Your task to perform on an android device: Open Youtube and go to "Your channel" Image 0: 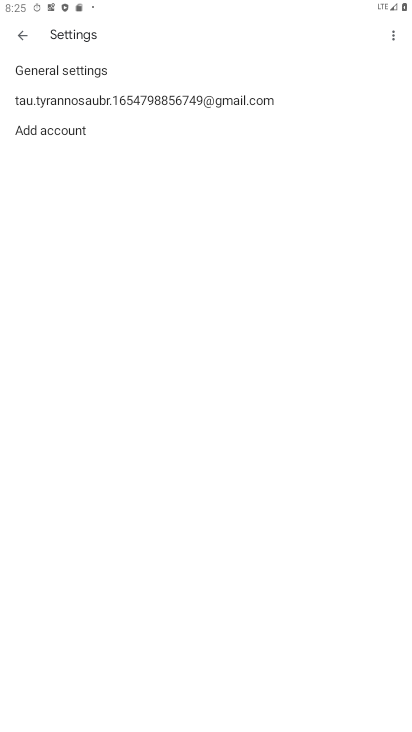
Step 0: press home button
Your task to perform on an android device: Open Youtube and go to "Your channel" Image 1: 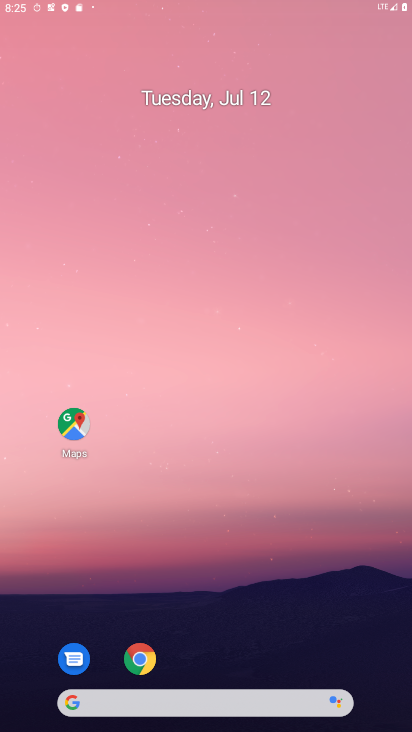
Step 1: drag from (344, 668) to (137, 45)
Your task to perform on an android device: Open Youtube and go to "Your channel" Image 2: 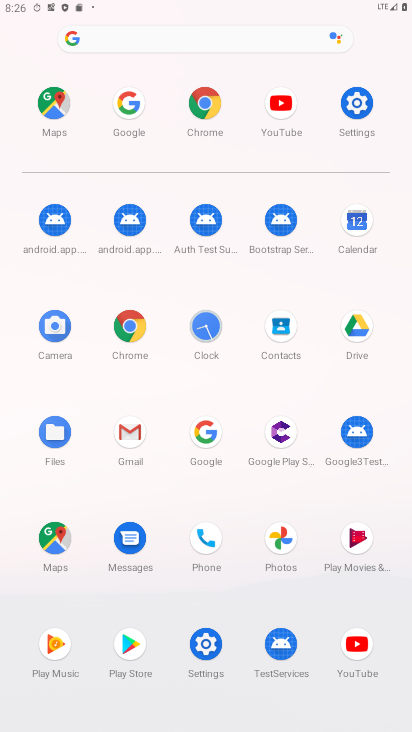
Step 2: click (357, 650)
Your task to perform on an android device: Open Youtube and go to "Your channel" Image 3: 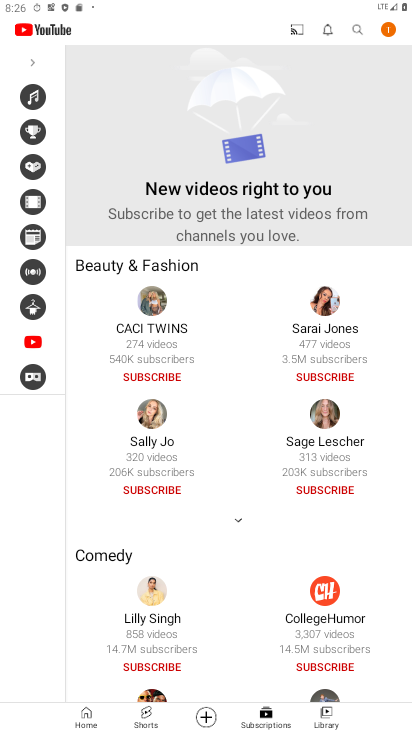
Step 3: click (394, 23)
Your task to perform on an android device: Open Youtube and go to "Your channel" Image 4: 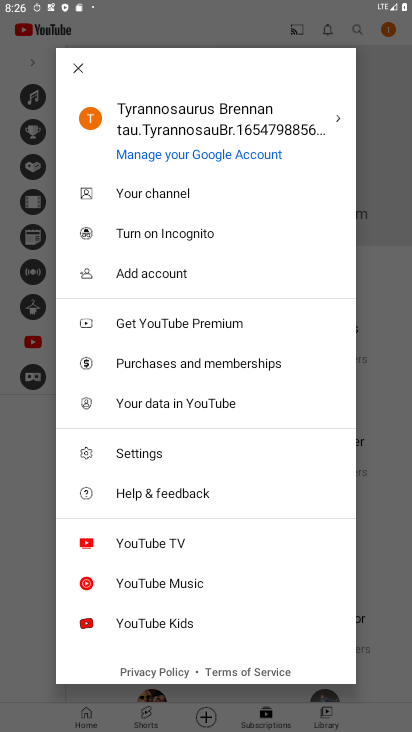
Step 4: click (190, 194)
Your task to perform on an android device: Open Youtube and go to "Your channel" Image 5: 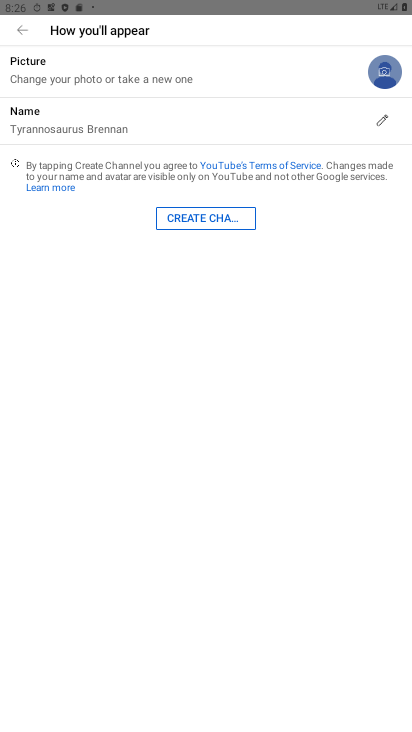
Step 5: task complete